Your task to perform on an android device: Go to Google Image 0: 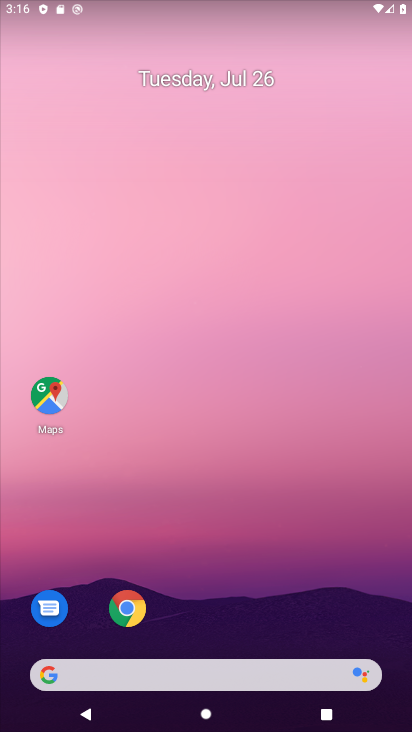
Step 0: drag from (389, 691) to (349, 133)
Your task to perform on an android device: Go to Google Image 1: 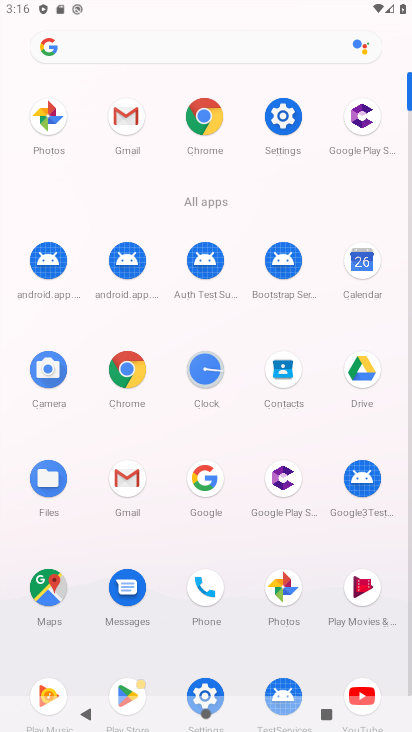
Step 1: click (206, 481)
Your task to perform on an android device: Go to Google Image 2: 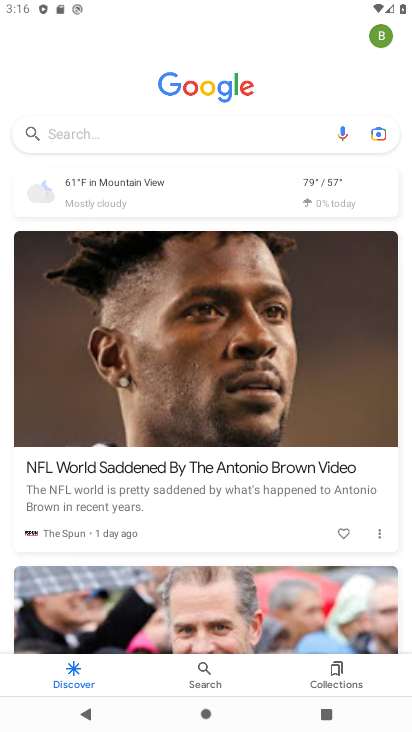
Step 2: task complete